Your task to perform on an android device: show emergency info Image 0: 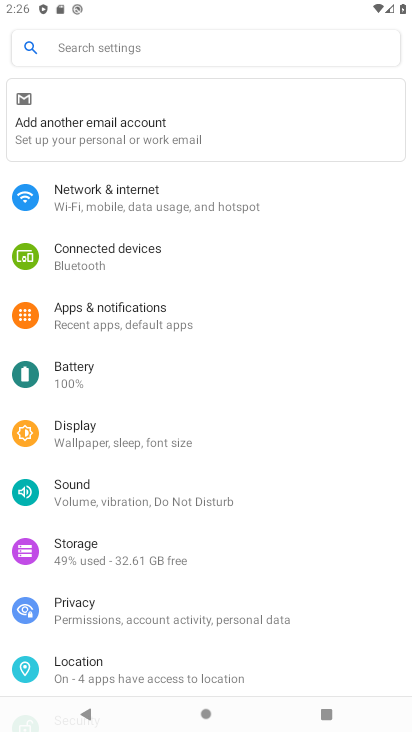
Step 0: drag from (254, 623) to (309, 190)
Your task to perform on an android device: show emergency info Image 1: 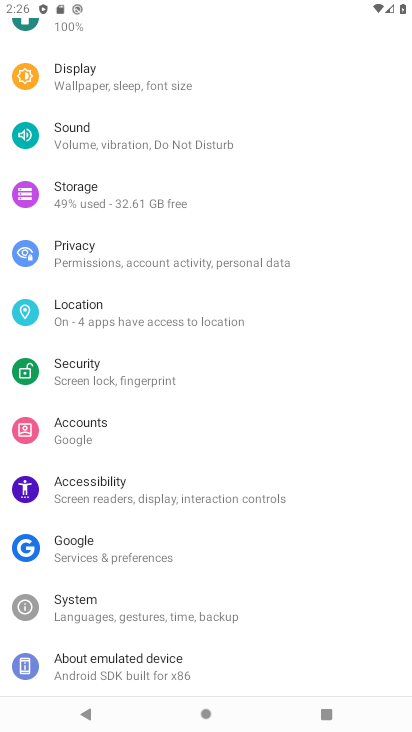
Step 1: click (131, 665)
Your task to perform on an android device: show emergency info Image 2: 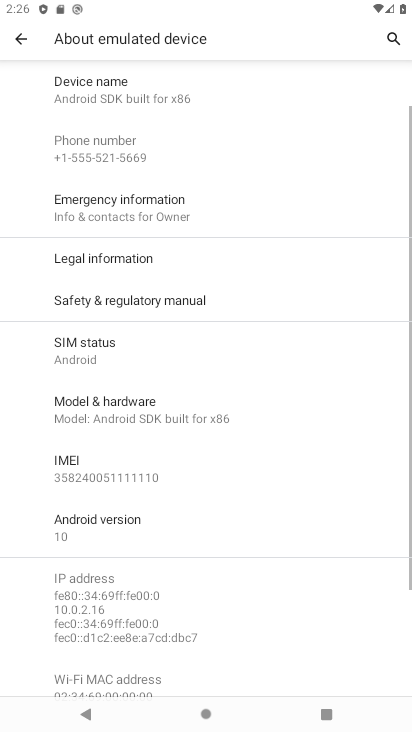
Step 2: task complete